Your task to perform on an android device: Clear all items from cart on walmart. Add beats solo 3 to the cart on walmart Image 0: 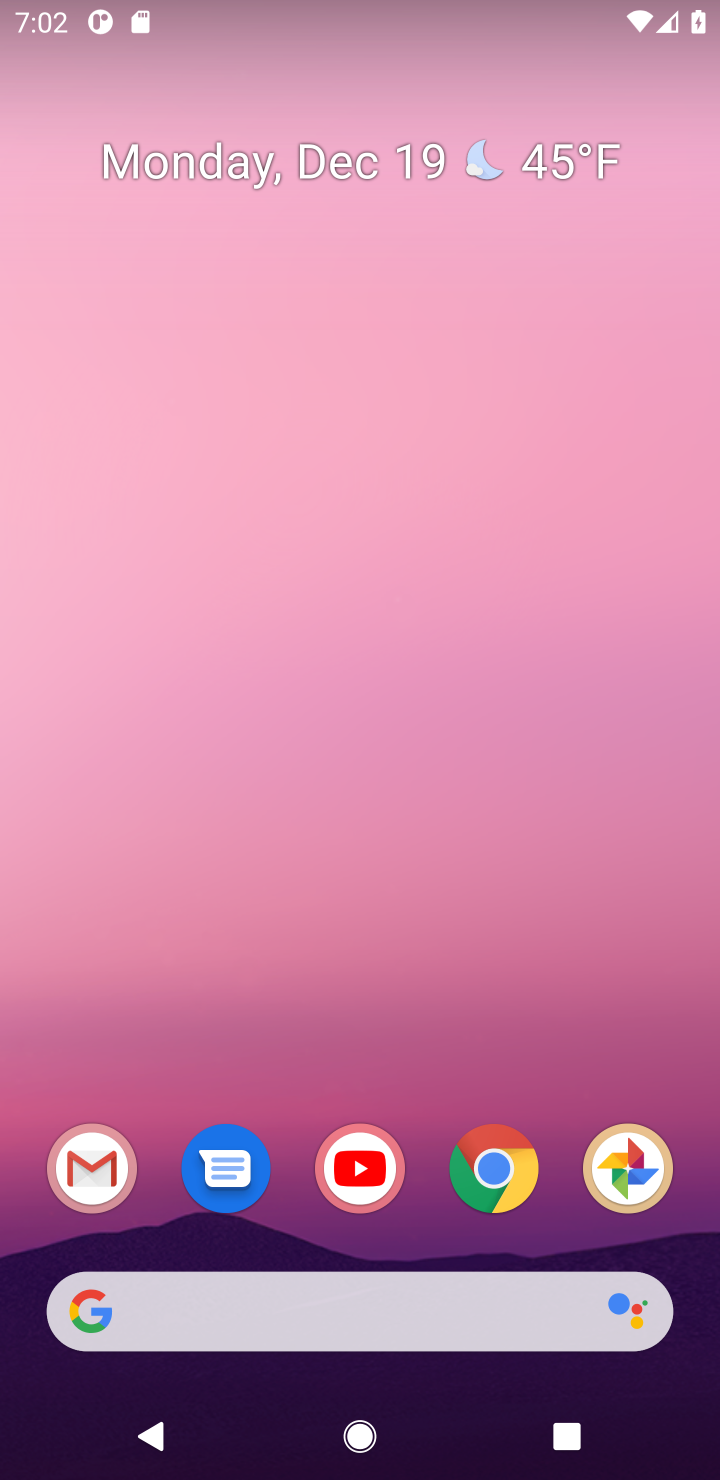
Step 0: click (491, 1179)
Your task to perform on an android device: Clear all items from cart on walmart. Add beats solo 3 to the cart on walmart Image 1: 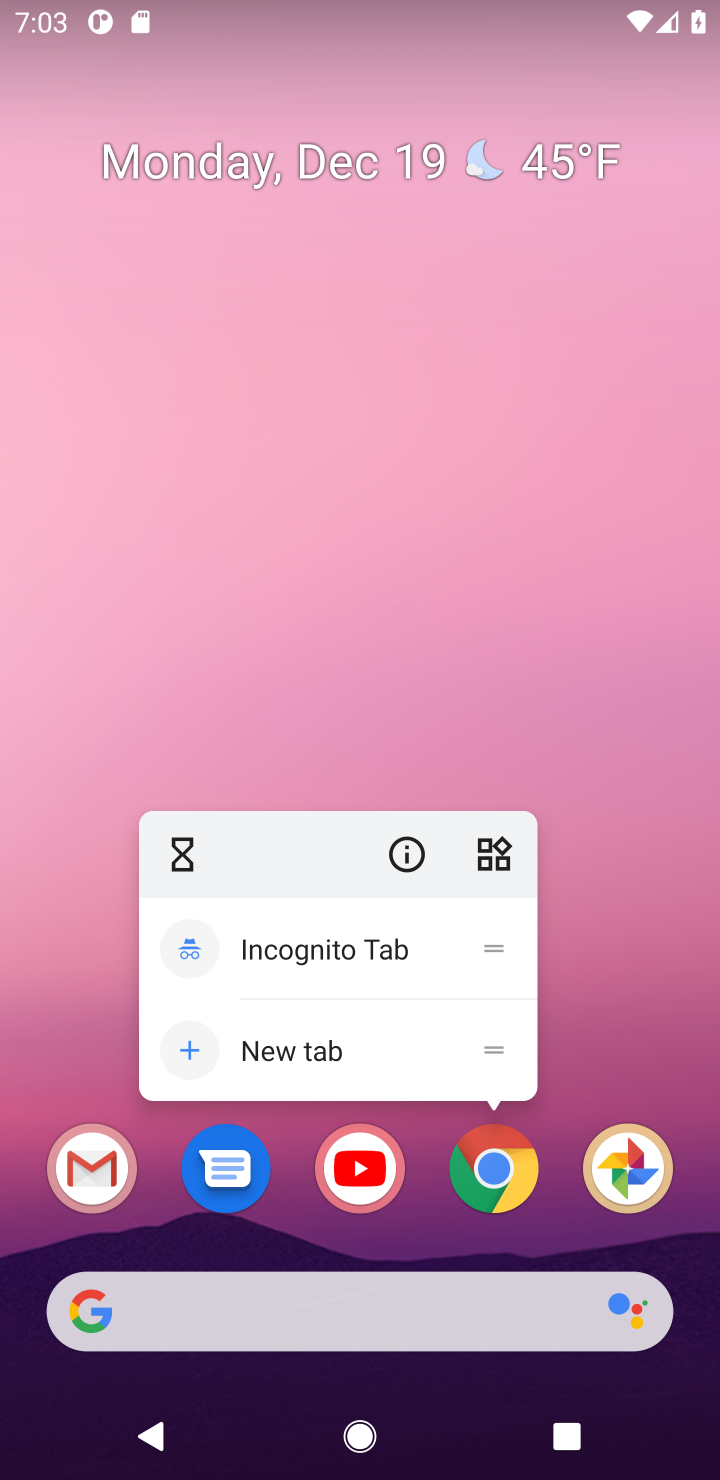
Step 1: click (491, 1179)
Your task to perform on an android device: Clear all items from cart on walmart. Add beats solo 3 to the cart on walmart Image 2: 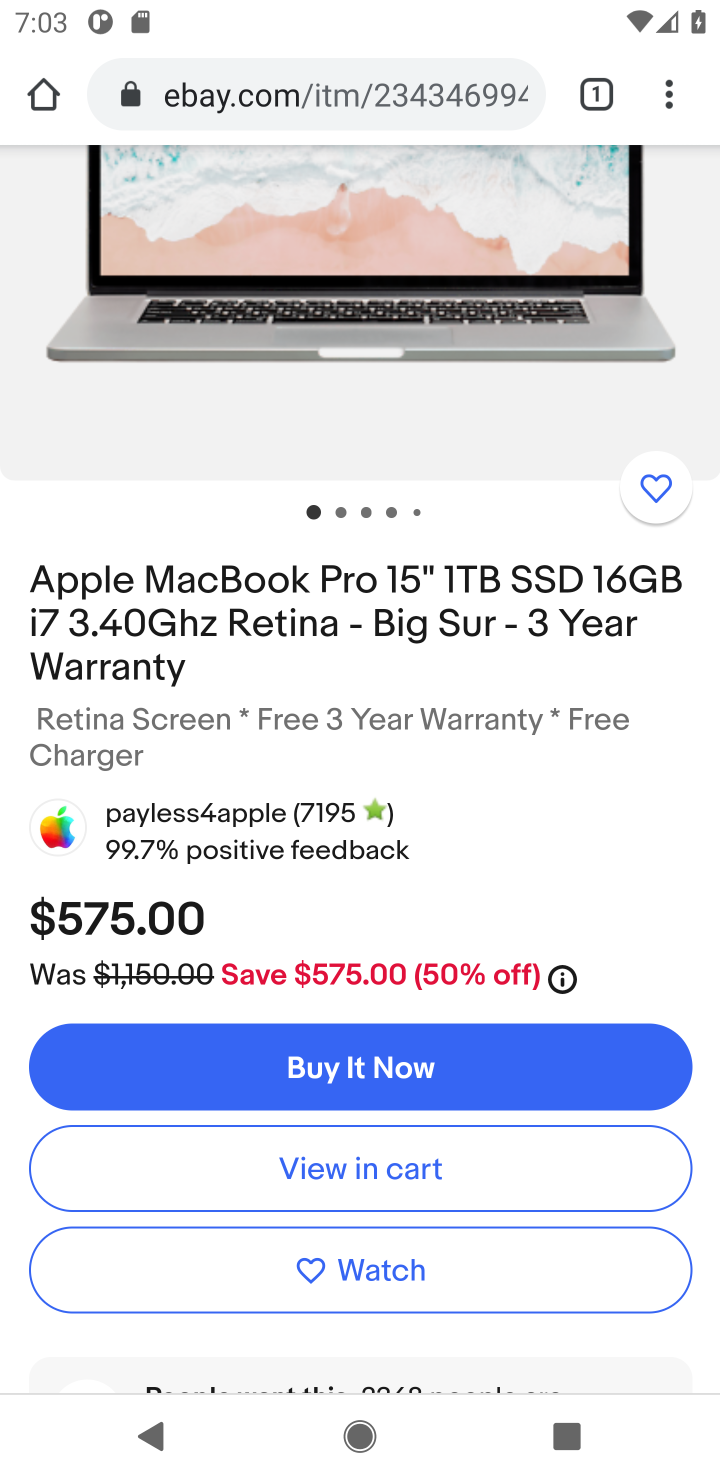
Step 2: click (308, 100)
Your task to perform on an android device: Clear all items from cart on walmart. Add beats solo 3 to the cart on walmart Image 3: 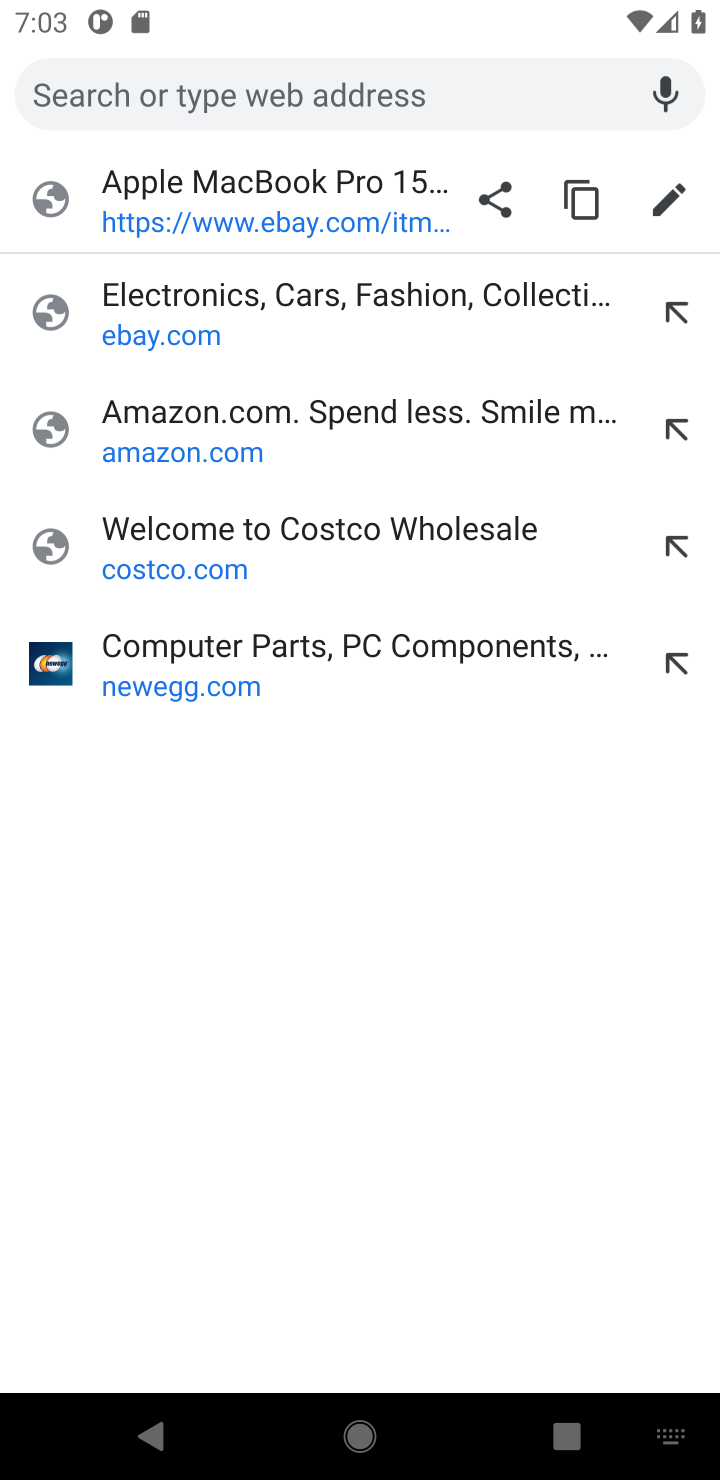
Step 3: type "walmart.com"
Your task to perform on an android device: Clear all items from cart on walmart. Add beats solo 3 to the cart on walmart Image 4: 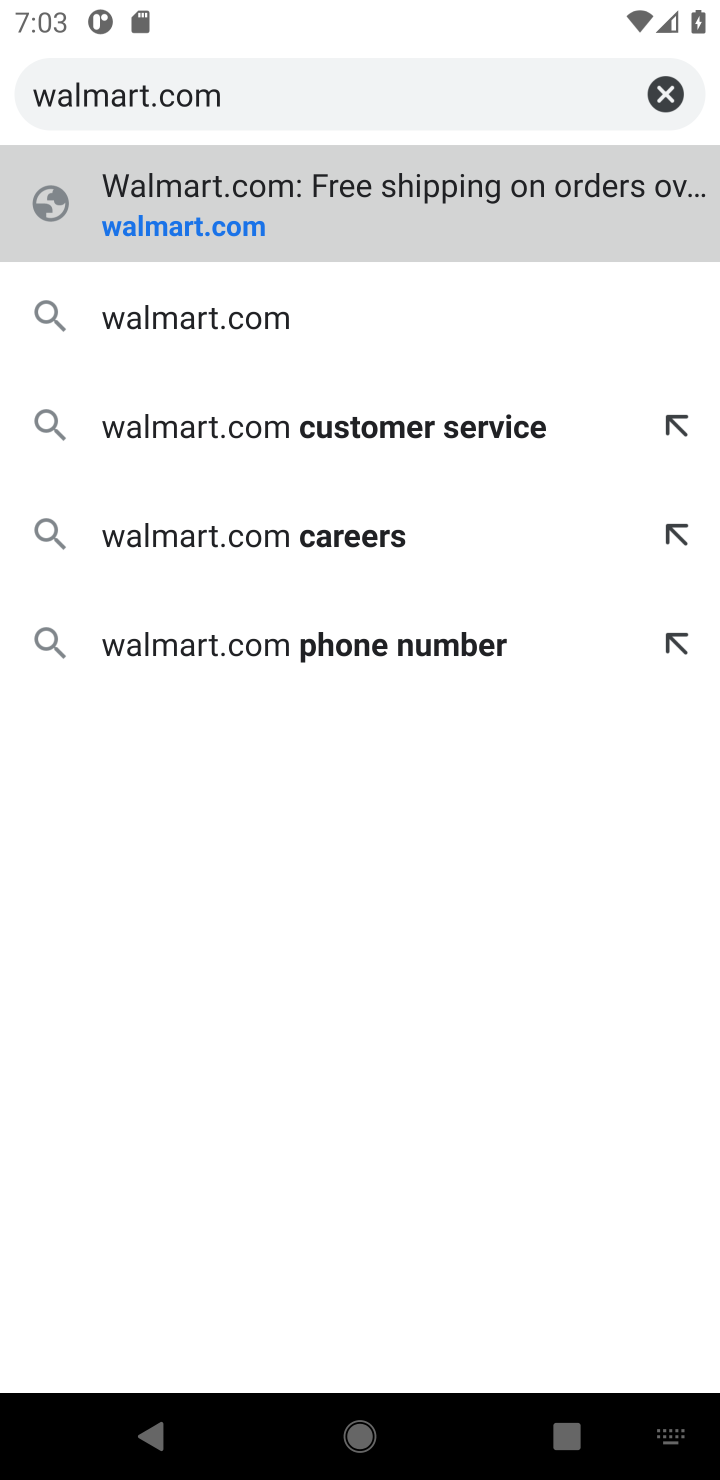
Step 4: click (181, 227)
Your task to perform on an android device: Clear all items from cart on walmart. Add beats solo 3 to the cart on walmart Image 5: 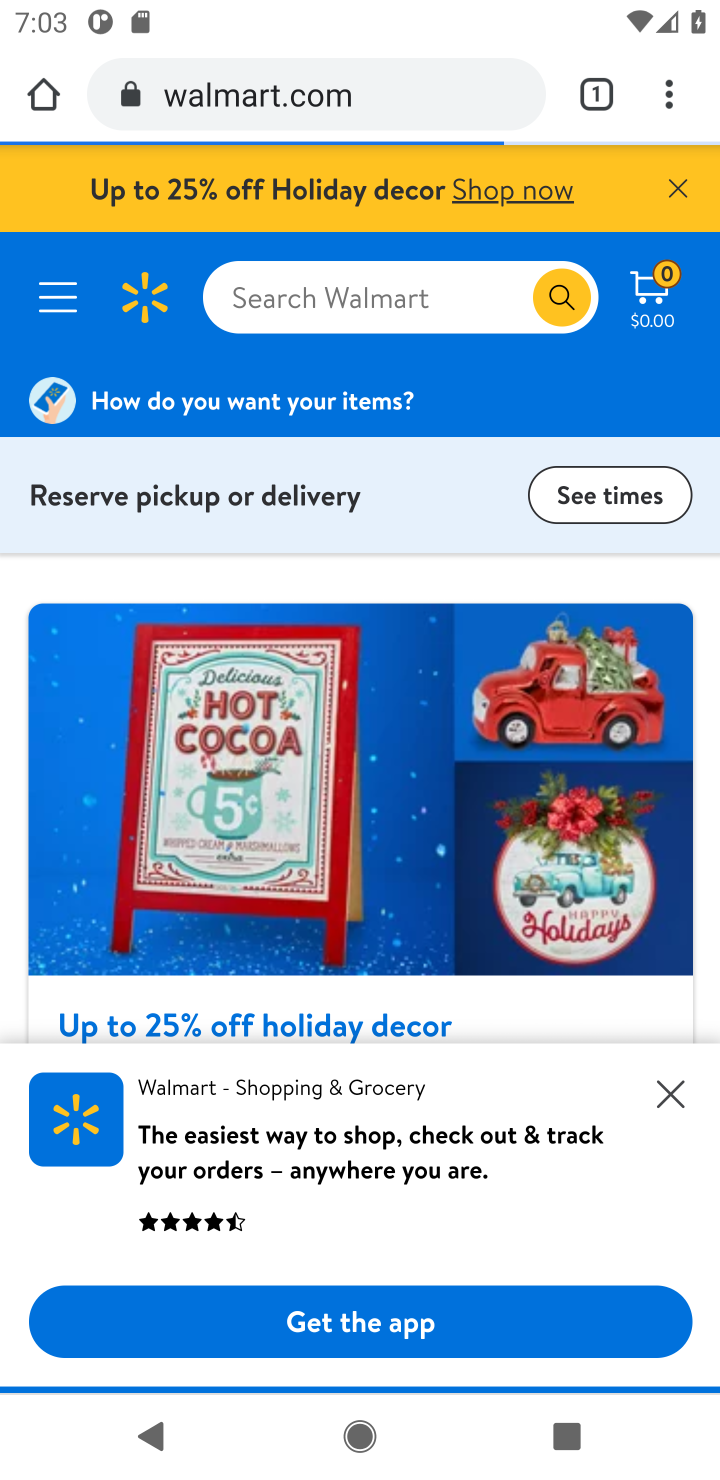
Step 5: click (653, 298)
Your task to perform on an android device: Clear all items from cart on walmart. Add beats solo 3 to the cart on walmart Image 6: 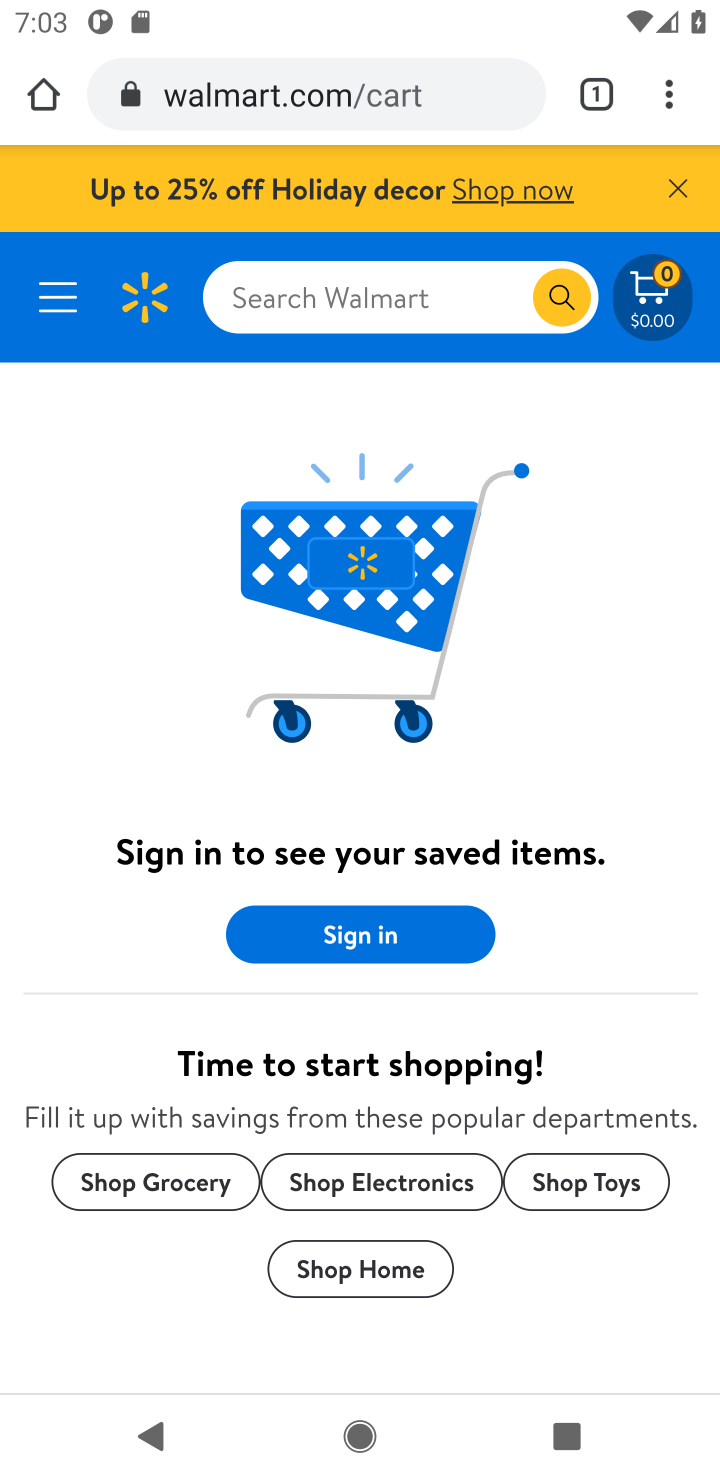
Step 6: click (272, 290)
Your task to perform on an android device: Clear all items from cart on walmart. Add beats solo 3 to the cart on walmart Image 7: 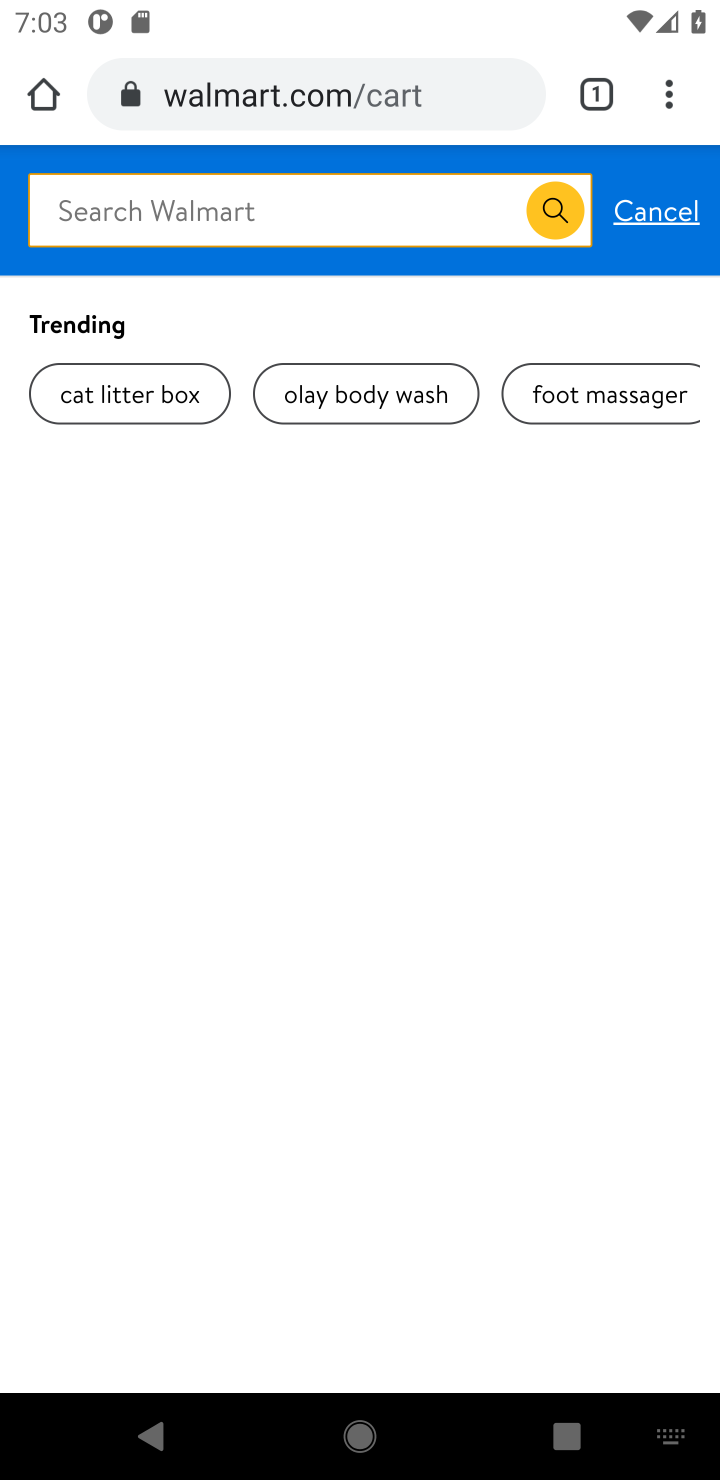
Step 7: type "beats solo 3"
Your task to perform on an android device: Clear all items from cart on walmart. Add beats solo 3 to the cart on walmart Image 8: 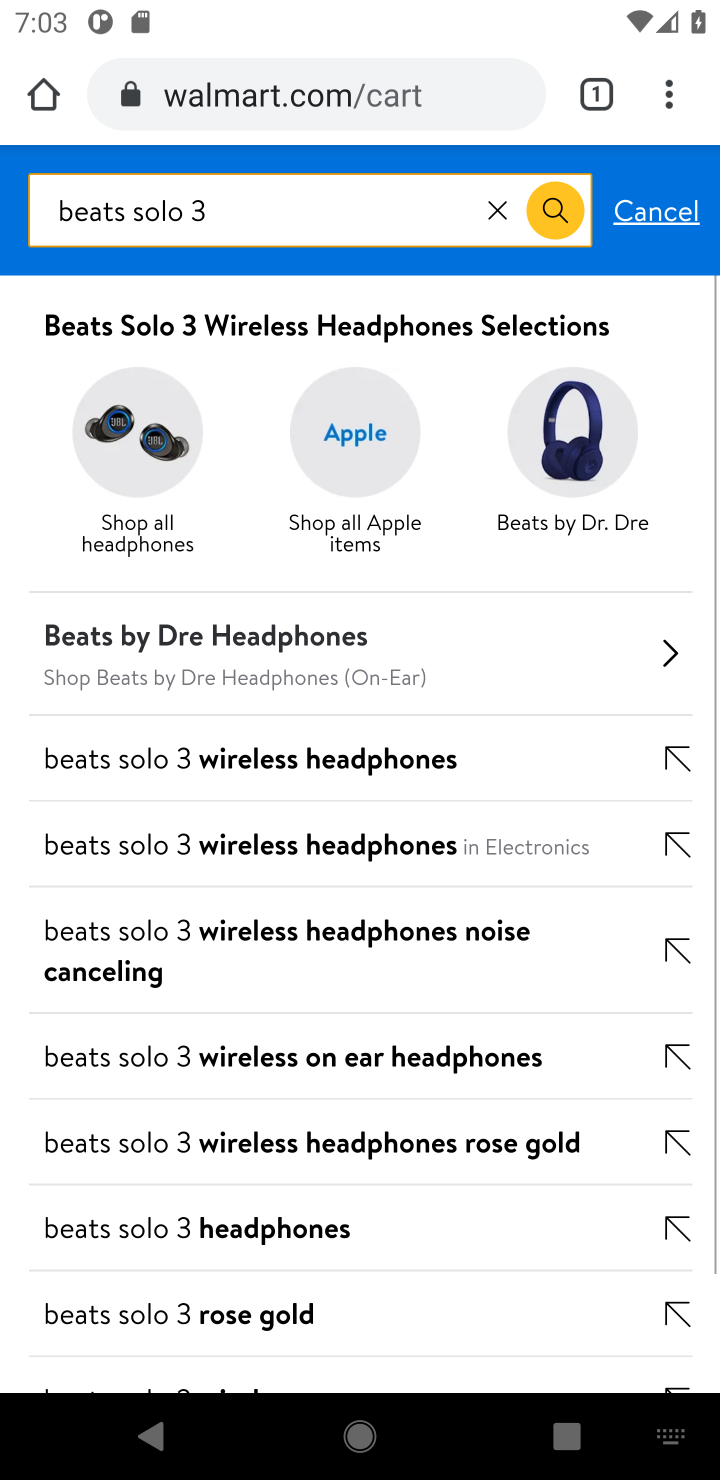
Step 8: click (544, 223)
Your task to perform on an android device: Clear all items from cart on walmart. Add beats solo 3 to the cart on walmart Image 9: 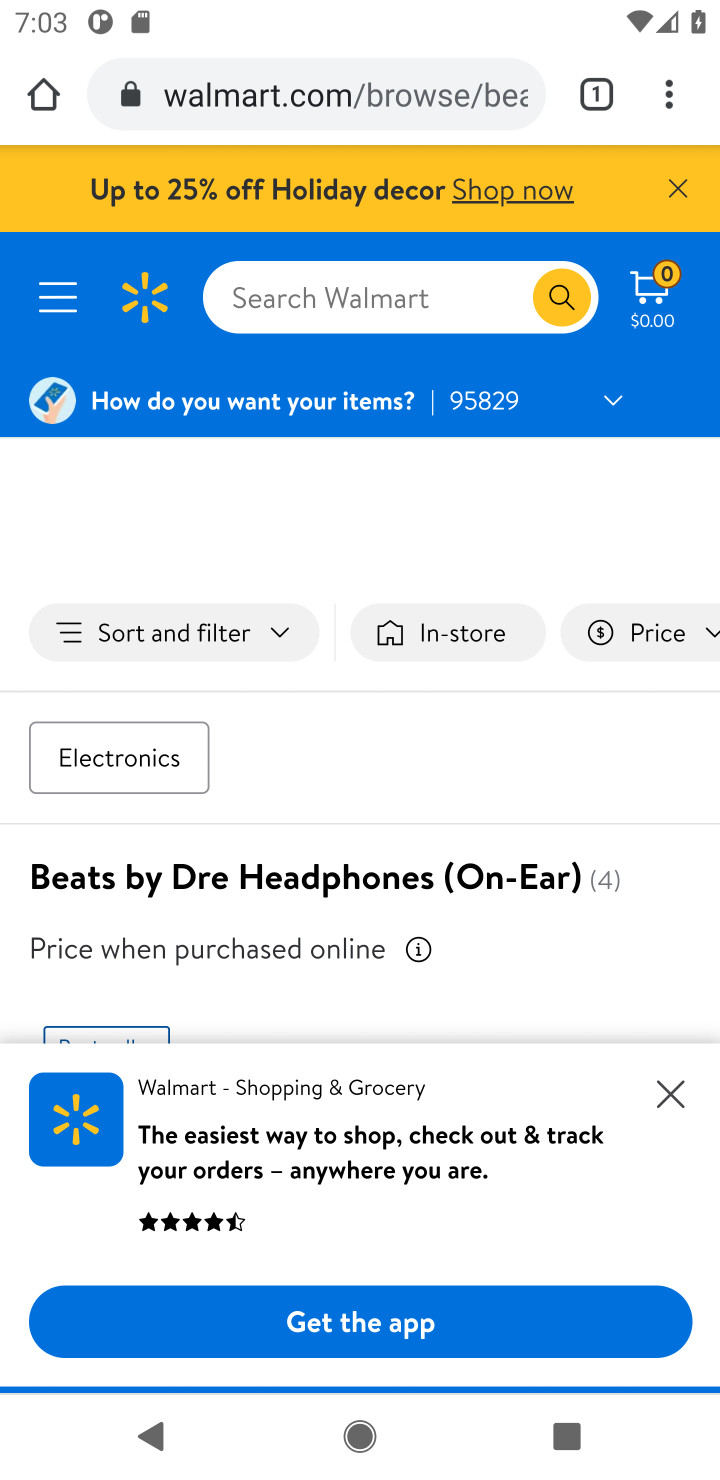
Step 9: click (674, 1099)
Your task to perform on an android device: Clear all items from cart on walmart. Add beats solo 3 to the cart on walmart Image 10: 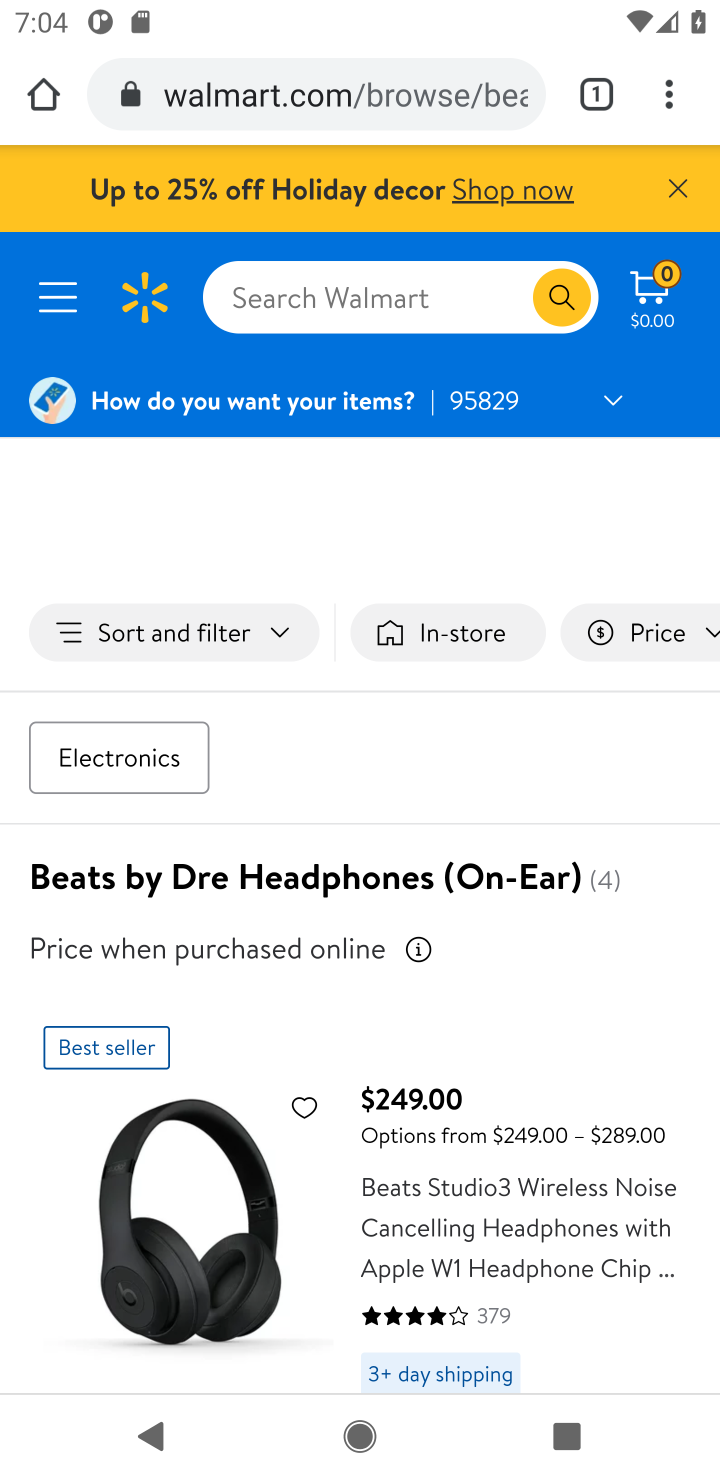
Step 10: drag from (321, 1060) to (279, 398)
Your task to perform on an android device: Clear all items from cart on walmart. Add beats solo 3 to the cart on walmart Image 11: 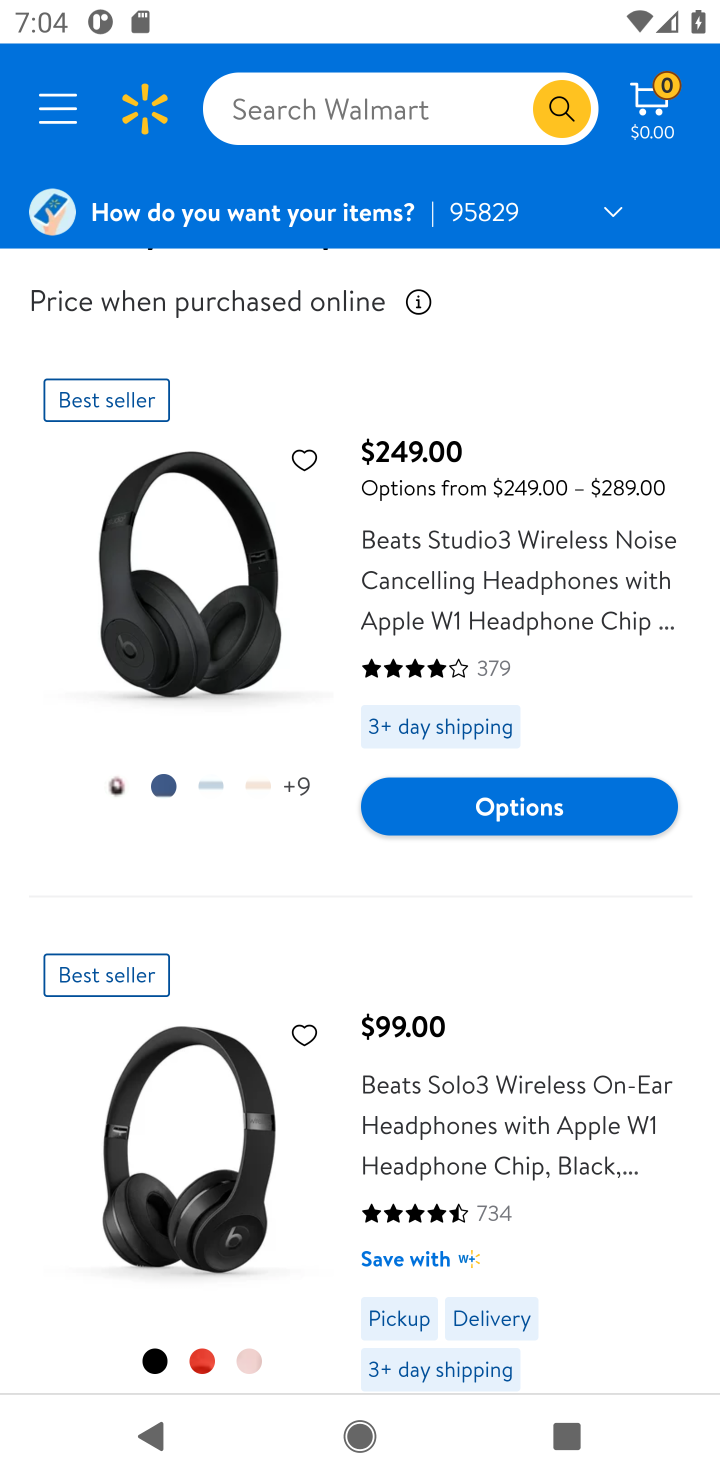
Step 11: drag from (242, 1001) to (248, 580)
Your task to perform on an android device: Clear all items from cart on walmart. Add beats solo 3 to the cart on walmart Image 12: 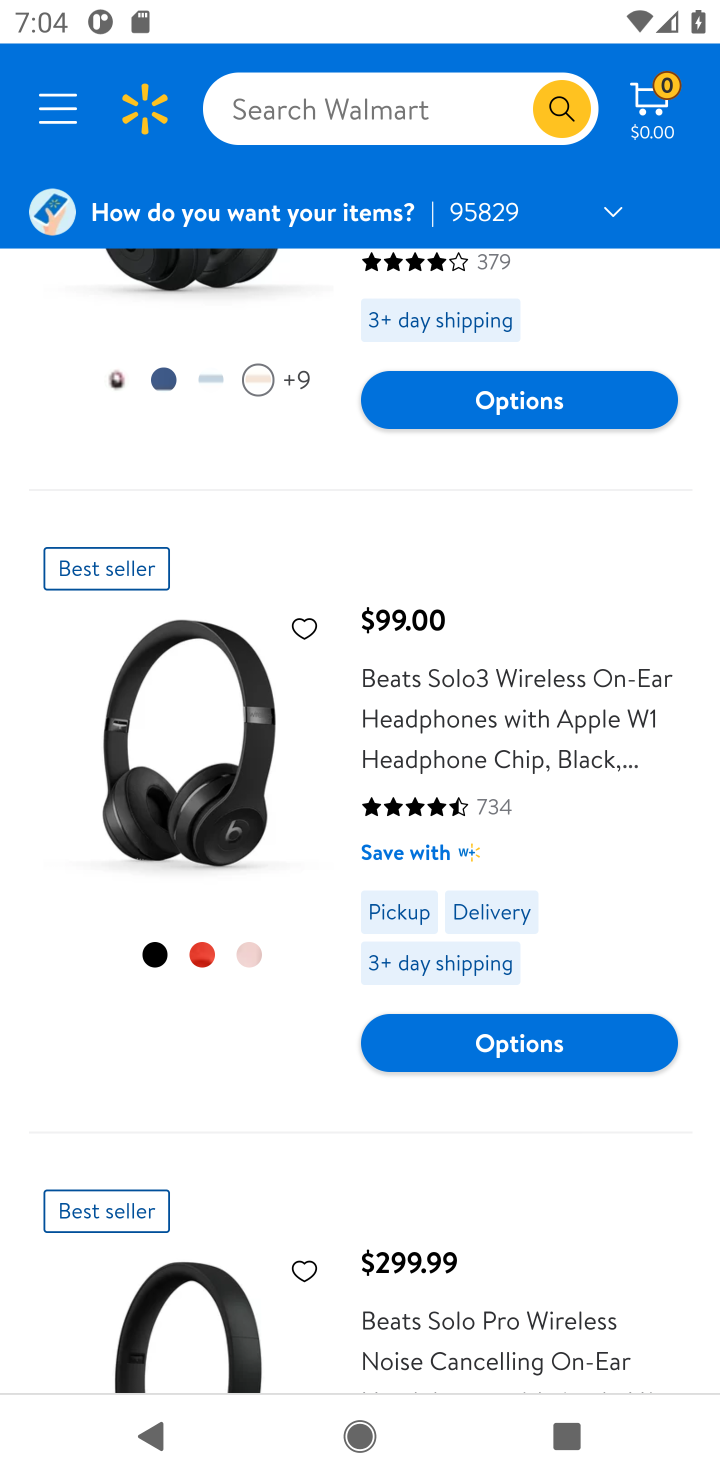
Step 12: click (504, 763)
Your task to perform on an android device: Clear all items from cart on walmart. Add beats solo 3 to the cart on walmart Image 13: 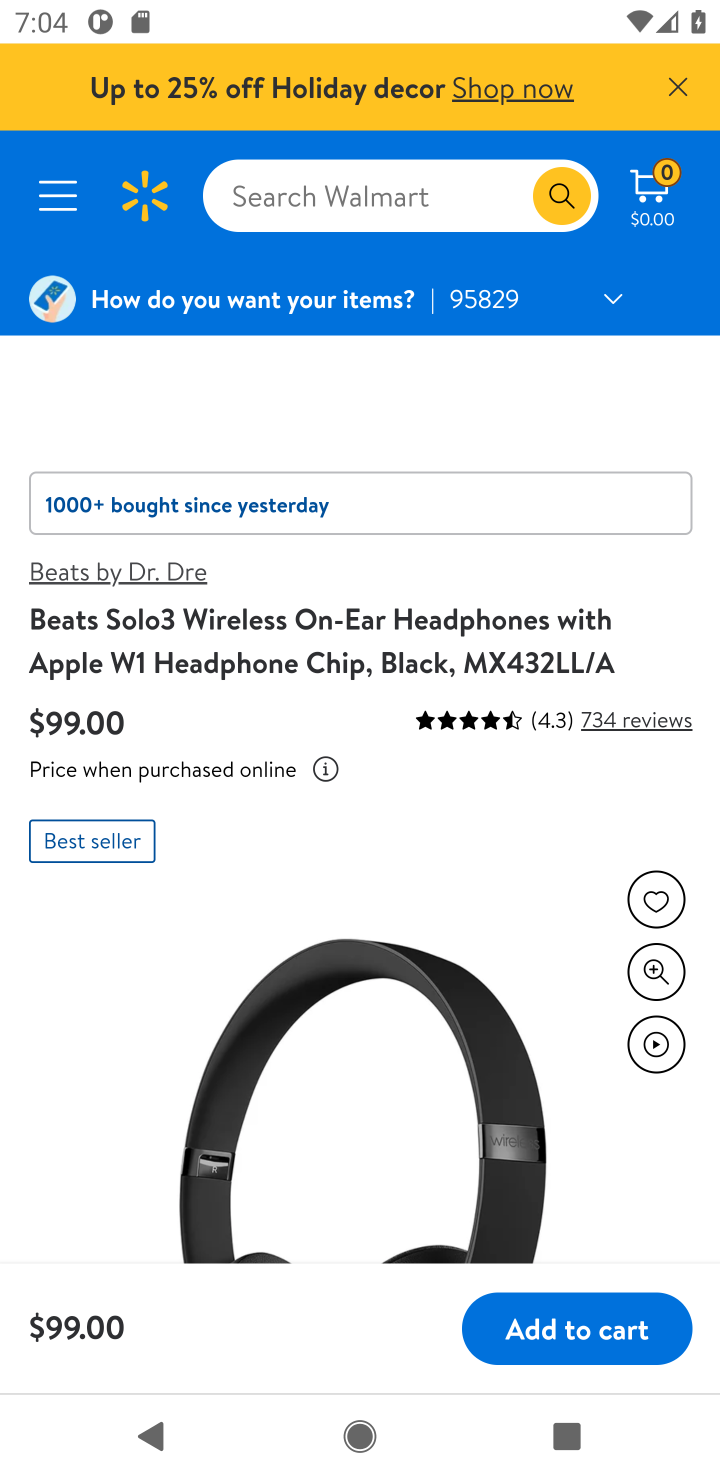
Step 13: click (536, 1334)
Your task to perform on an android device: Clear all items from cart on walmart. Add beats solo 3 to the cart on walmart Image 14: 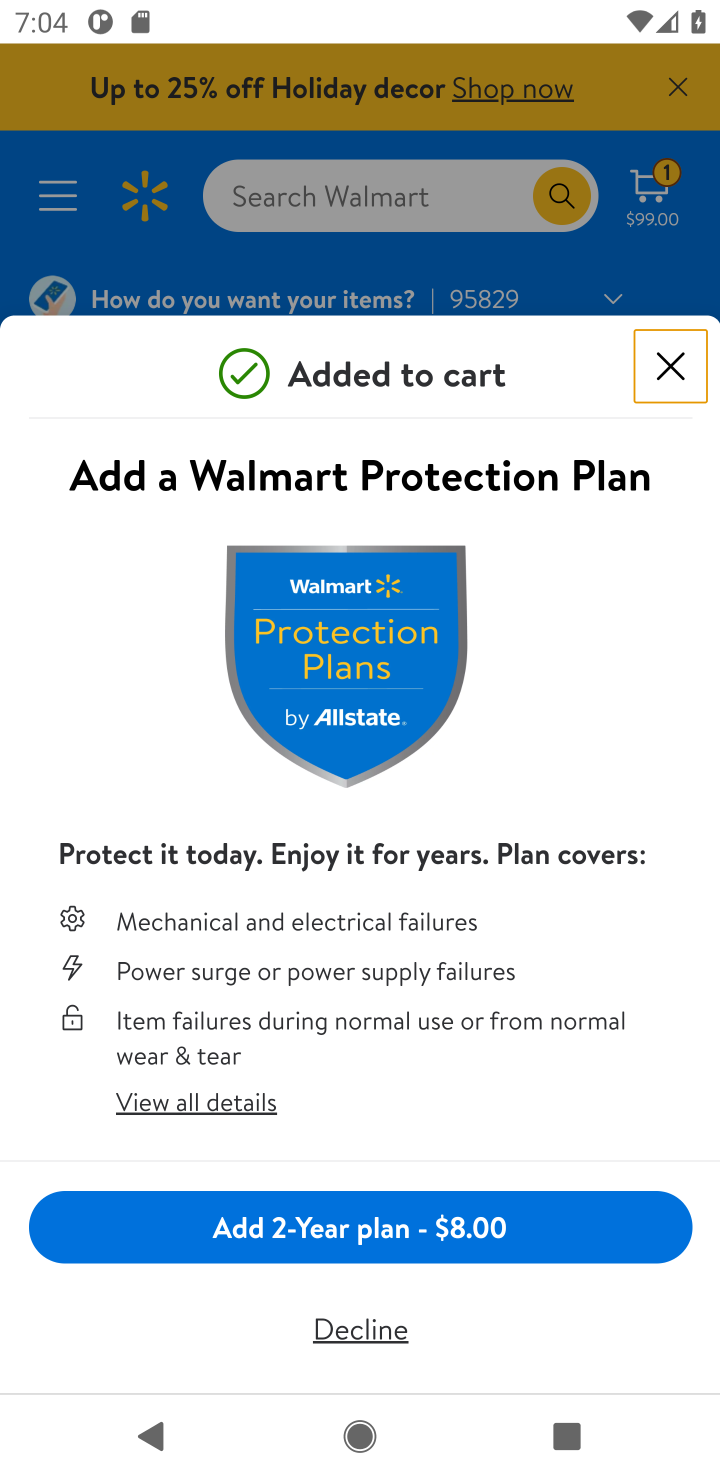
Step 14: task complete